Your task to perform on an android device: Search for Mexican restaurants on Maps Image 0: 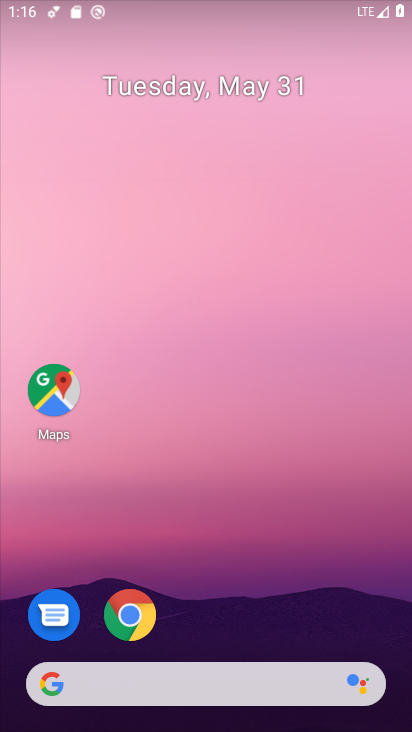
Step 0: drag from (244, 550) to (279, 8)
Your task to perform on an android device: Search for Mexican restaurants on Maps Image 1: 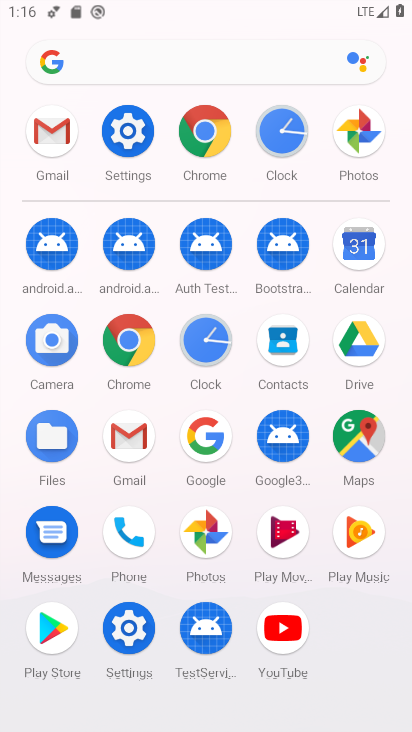
Step 1: click (362, 429)
Your task to perform on an android device: Search for Mexican restaurants on Maps Image 2: 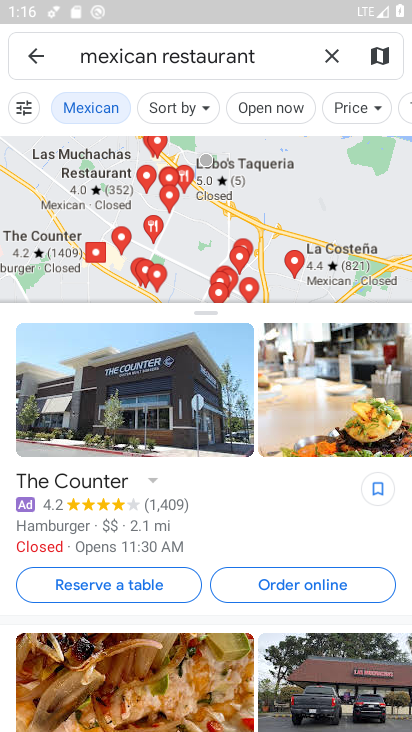
Step 2: task complete